Your task to perform on an android device: open device folders in google photos Image 0: 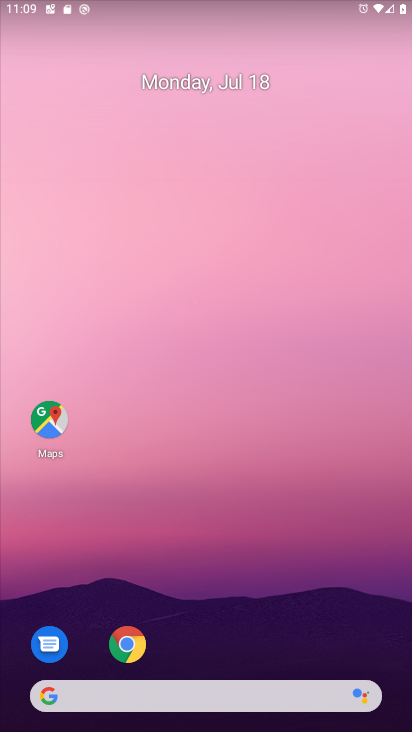
Step 0: drag from (299, 660) to (304, 199)
Your task to perform on an android device: open device folders in google photos Image 1: 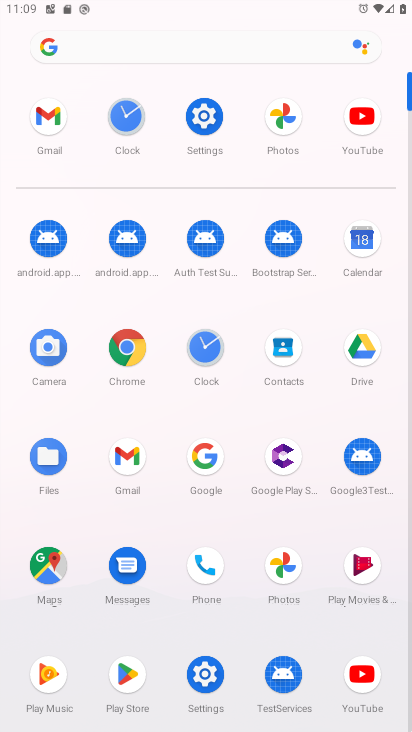
Step 1: click (275, 133)
Your task to perform on an android device: open device folders in google photos Image 2: 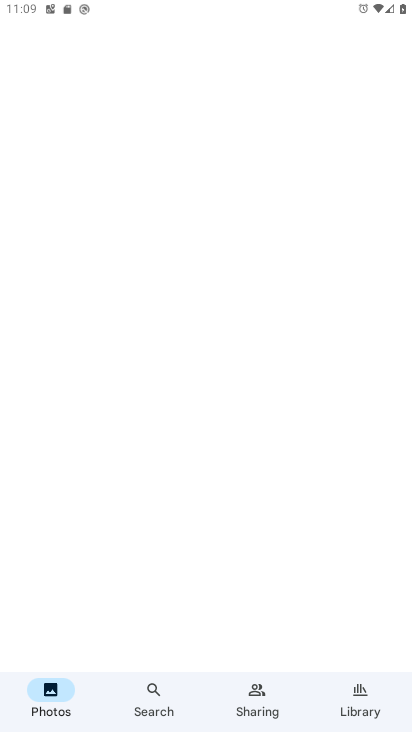
Step 2: task complete